Your task to perform on an android device: Toggle the flashlight Image 0: 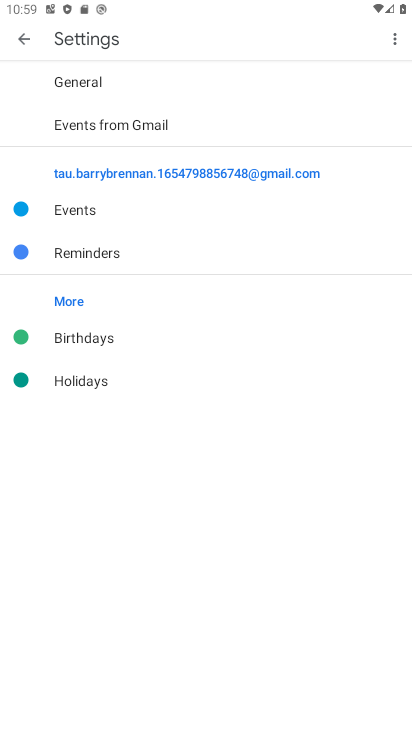
Step 0: press home button
Your task to perform on an android device: Toggle the flashlight Image 1: 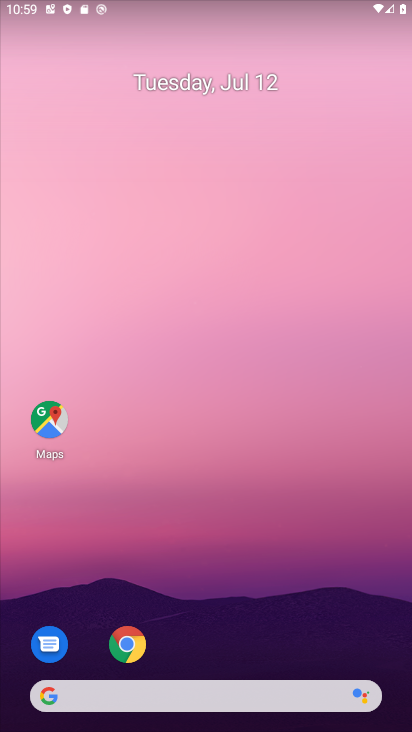
Step 1: drag from (222, 665) to (207, 61)
Your task to perform on an android device: Toggle the flashlight Image 2: 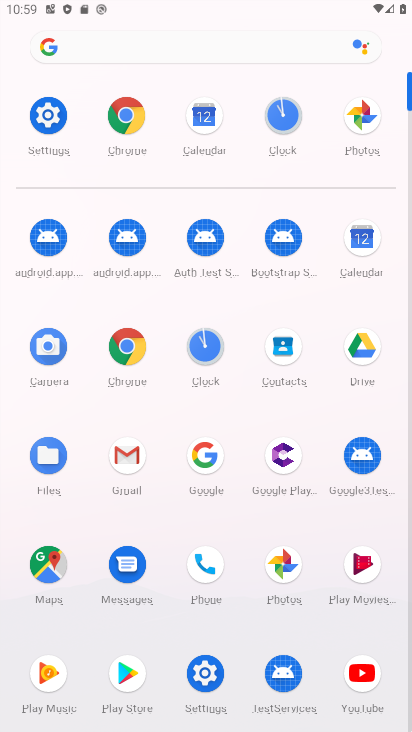
Step 2: click (47, 105)
Your task to perform on an android device: Toggle the flashlight Image 3: 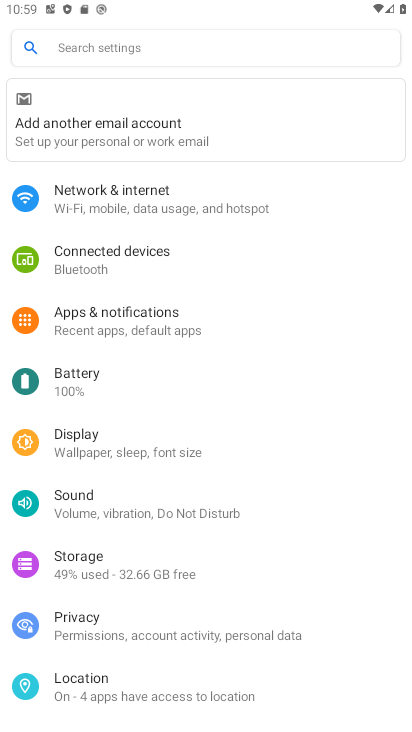
Step 3: click (113, 42)
Your task to perform on an android device: Toggle the flashlight Image 4: 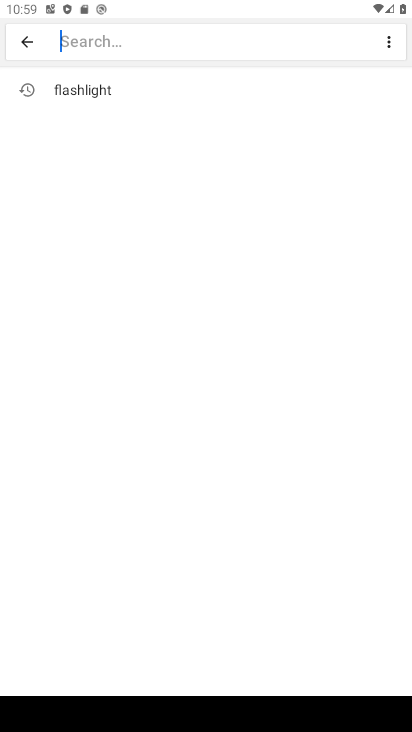
Step 4: click (107, 88)
Your task to perform on an android device: Toggle the flashlight Image 5: 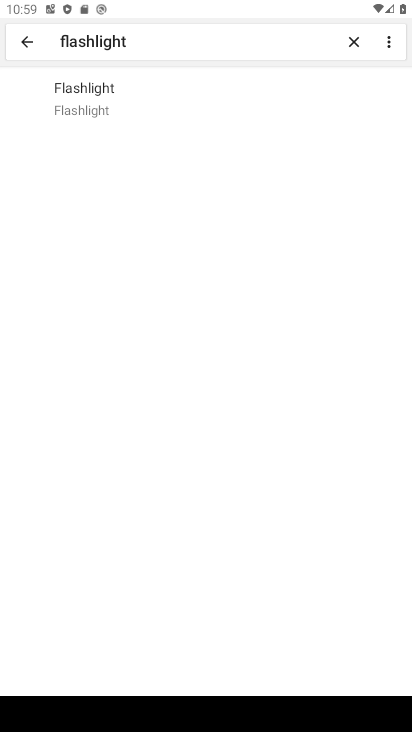
Step 5: task complete